Your task to perform on an android device: turn smart compose on in the gmail app Image 0: 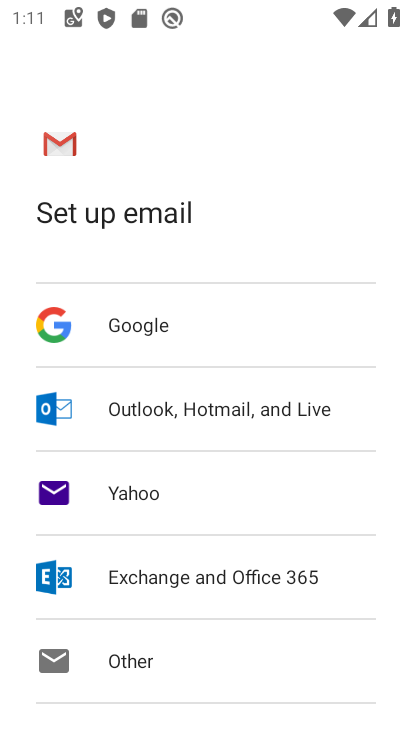
Step 0: press home button
Your task to perform on an android device: turn smart compose on in the gmail app Image 1: 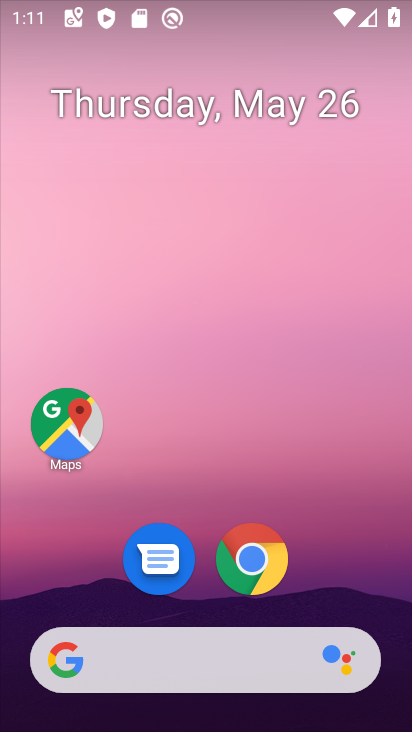
Step 1: drag from (169, 661) to (291, 106)
Your task to perform on an android device: turn smart compose on in the gmail app Image 2: 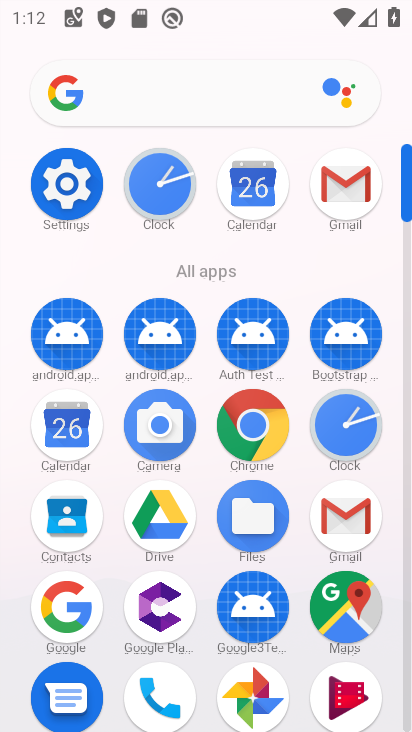
Step 2: click (347, 519)
Your task to perform on an android device: turn smart compose on in the gmail app Image 3: 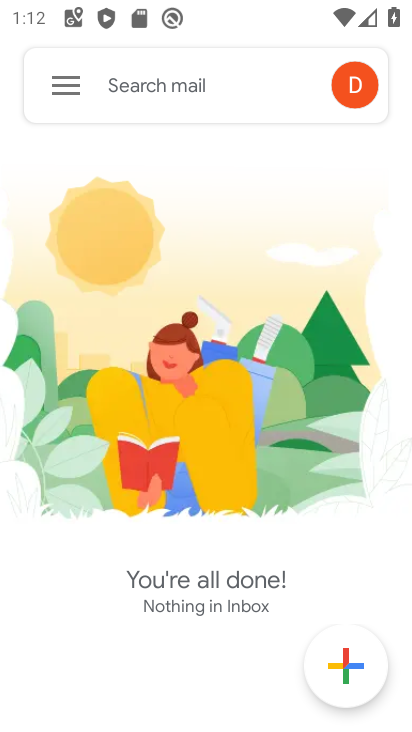
Step 3: click (67, 85)
Your task to perform on an android device: turn smart compose on in the gmail app Image 4: 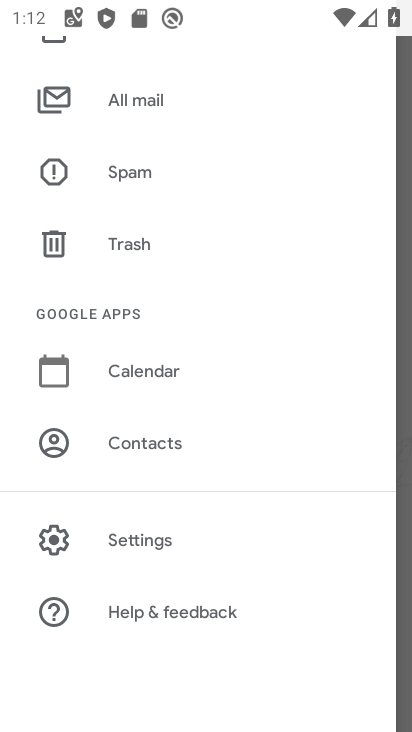
Step 4: click (146, 538)
Your task to perform on an android device: turn smart compose on in the gmail app Image 5: 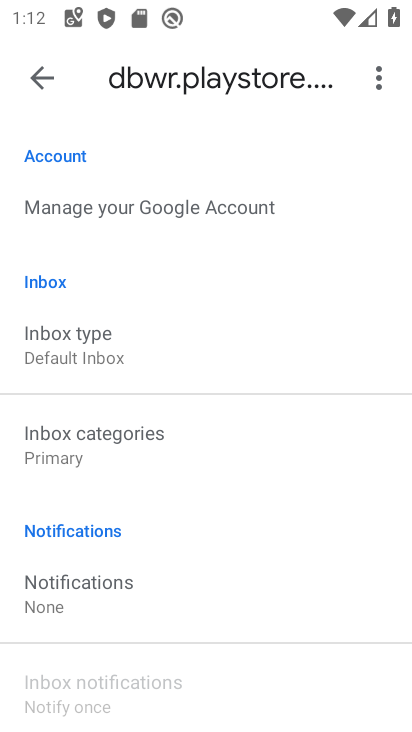
Step 5: task complete